Your task to perform on an android device: check data usage Image 0: 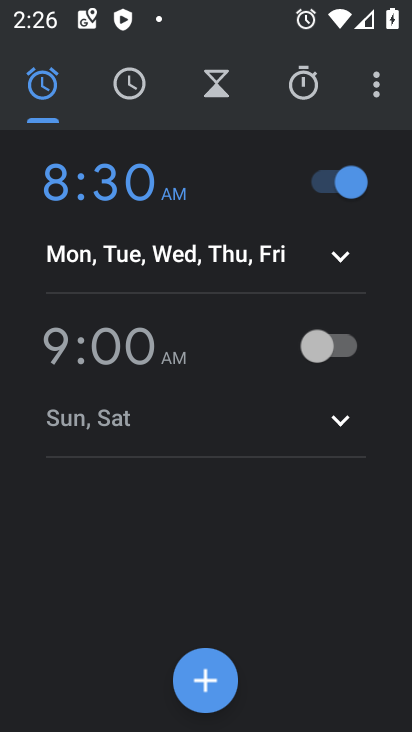
Step 0: press home button
Your task to perform on an android device: check data usage Image 1: 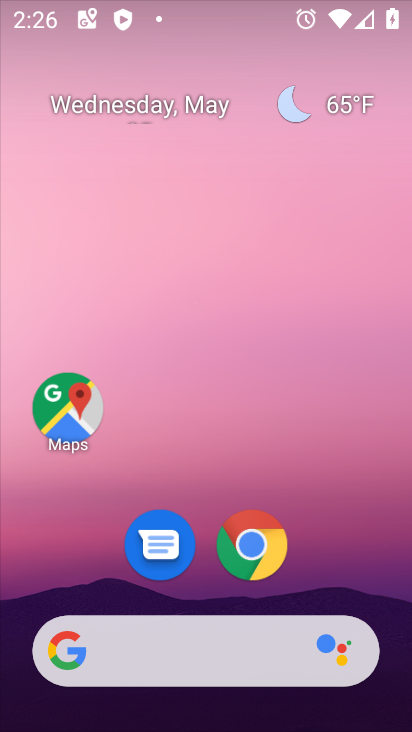
Step 1: drag from (325, 440) to (238, 21)
Your task to perform on an android device: check data usage Image 2: 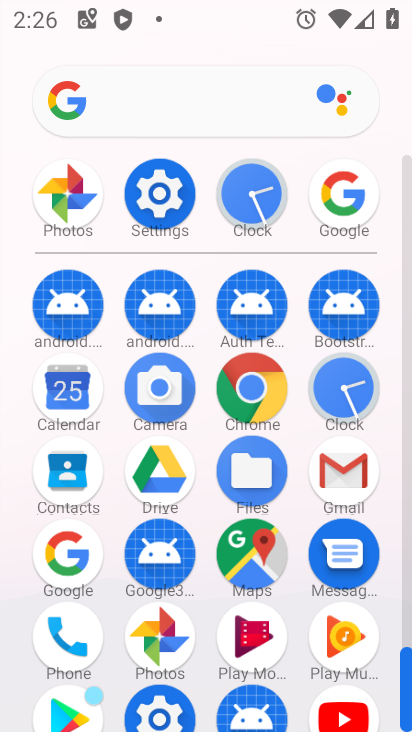
Step 2: click (177, 205)
Your task to perform on an android device: check data usage Image 3: 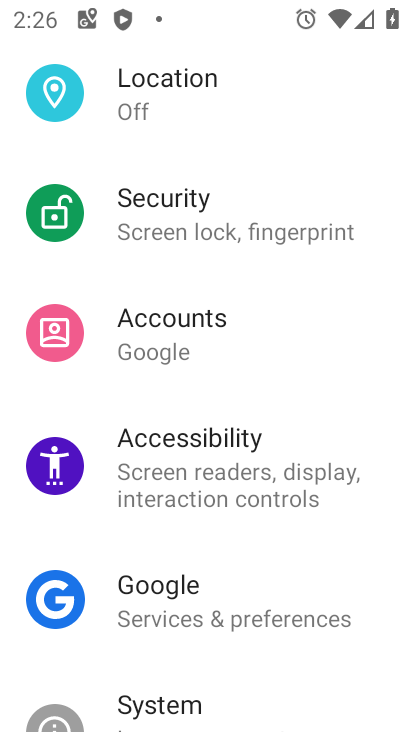
Step 3: drag from (271, 123) to (241, 724)
Your task to perform on an android device: check data usage Image 4: 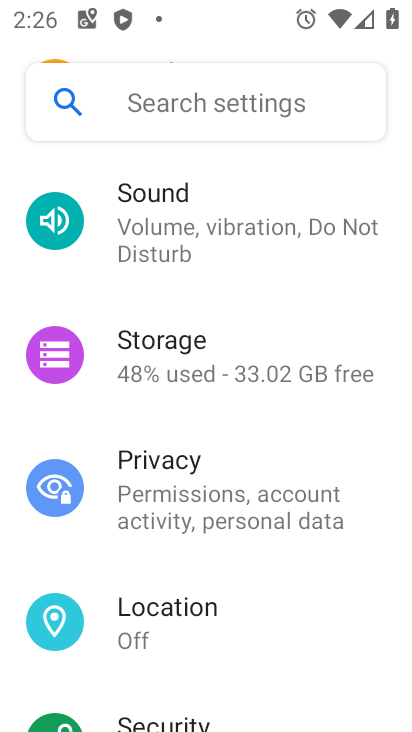
Step 4: drag from (247, 177) to (271, 694)
Your task to perform on an android device: check data usage Image 5: 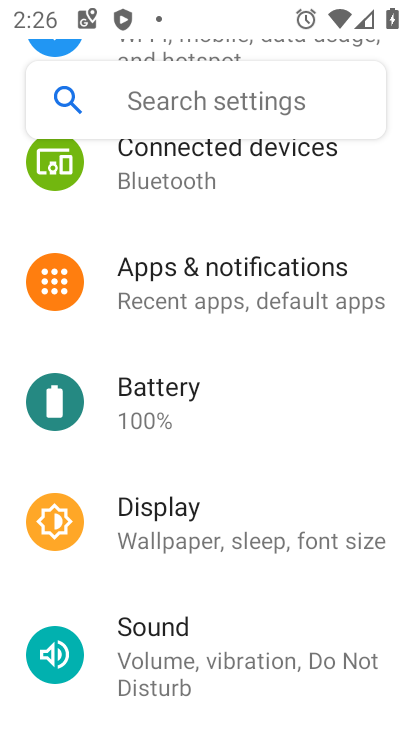
Step 5: drag from (261, 198) to (250, 700)
Your task to perform on an android device: check data usage Image 6: 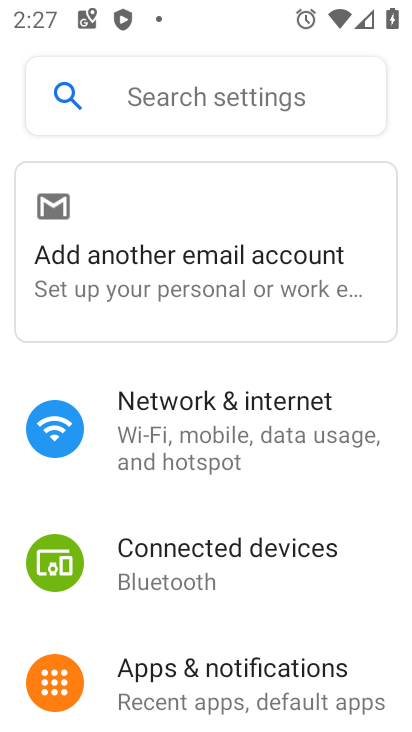
Step 6: drag from (272, 196) to (262, 698)
Your task to perform on an android device: check data usage Image 7: 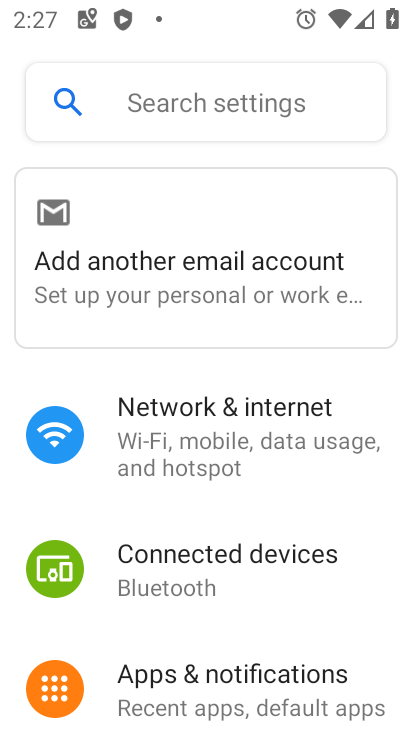
Step 7: click (219, 405)
Your task to perform on an android device: check data usage Image 8: 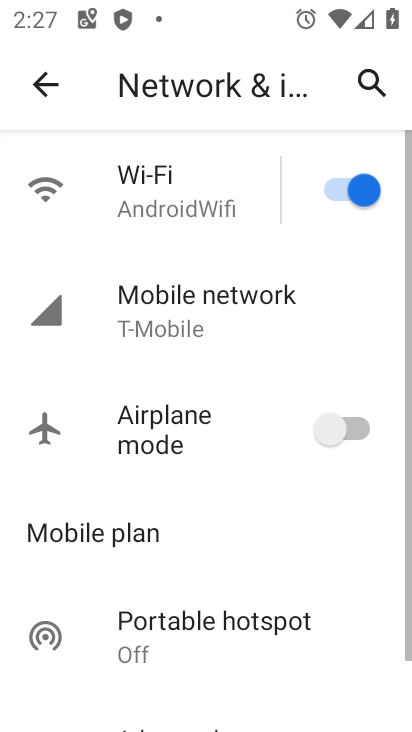
Step 8: click (138, 280)
Your task to perform on an android device: check data usage Image 9: 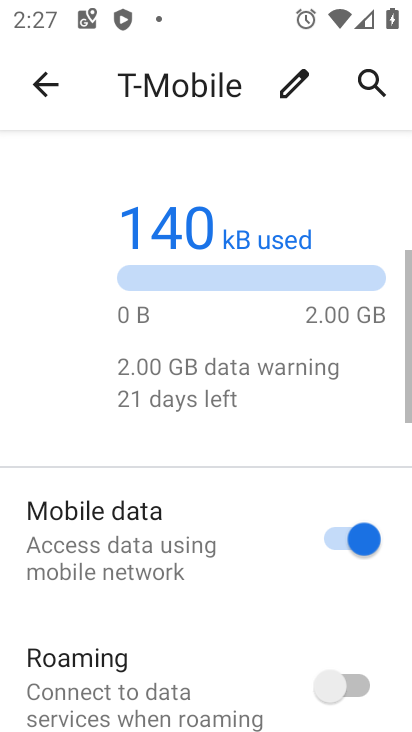
Step 9: task complete